Your task to perform on an android device: Clear the cart on newegg. Add logitech g933 to the cart on newegg Image 0: 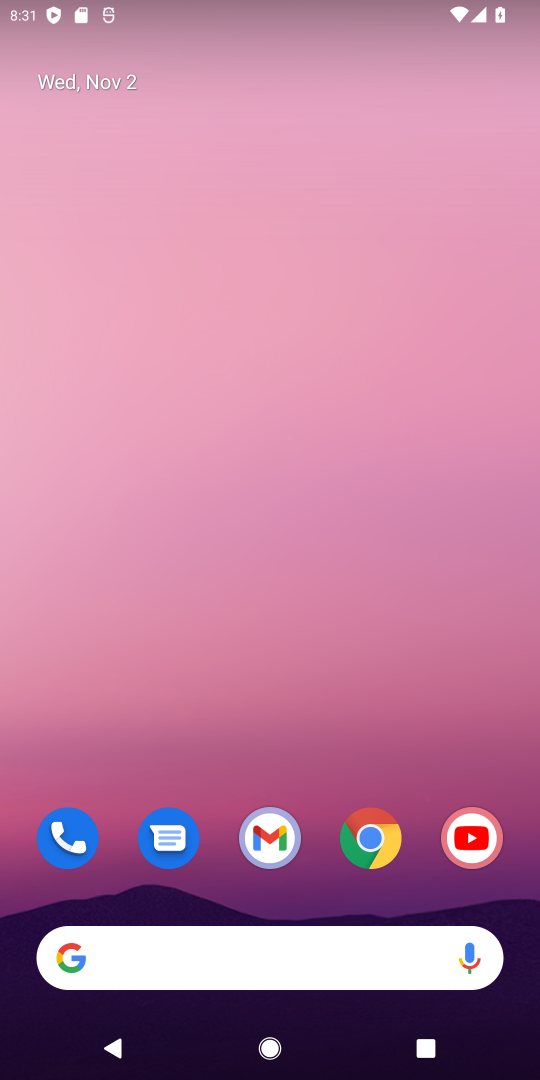
Step 0: click (389, 853)
Your task to perform on an android device: Clear the cart on newegg. Add logitech g933 to the cart on newegg Image 1: 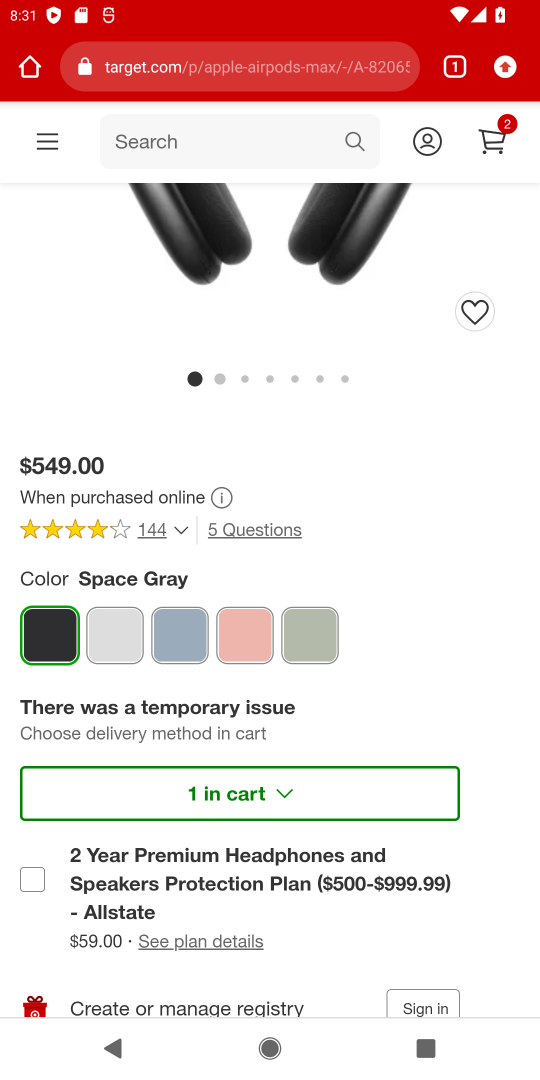
Step 1: click (307, 69)
Your task to perform on an android device: Clear the cart on newegg. Add logitech g933 to the cart on newegg Image 2: 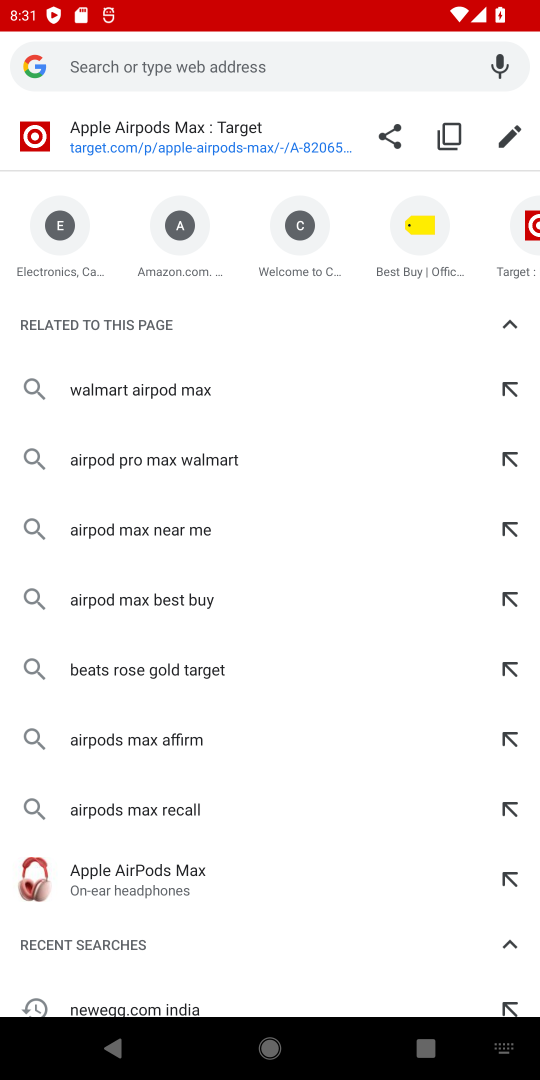
Step 2: type "newegg"
Your task to perform on an android device: Clear the cart on newegg. Add logitech g933 to the cart on newegg Image 3: 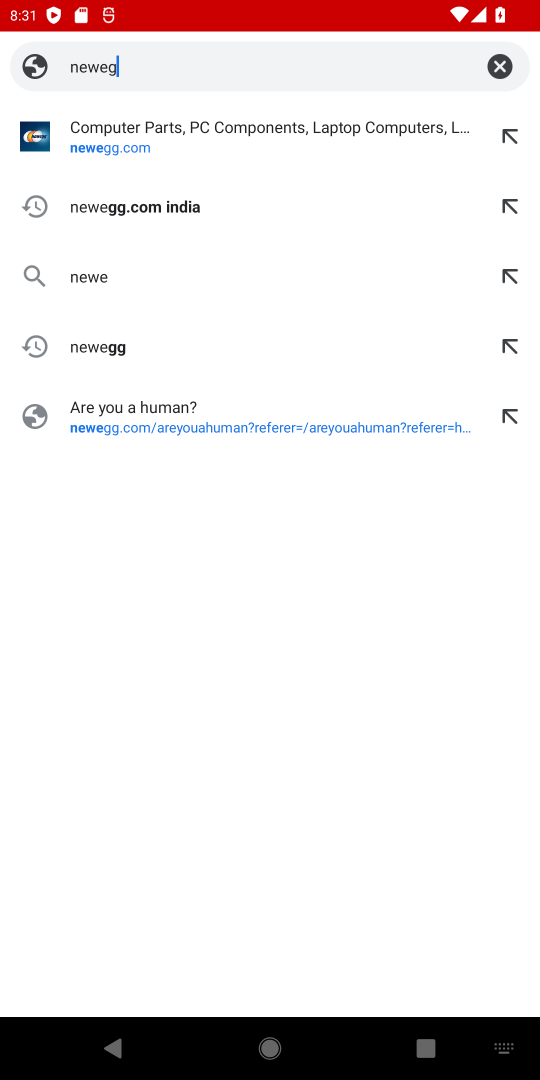
Step 3: type ""
Your task to perform on an android device: Clear the cart on newegg. Add logitech g933 to the cart on newegg Image 4: 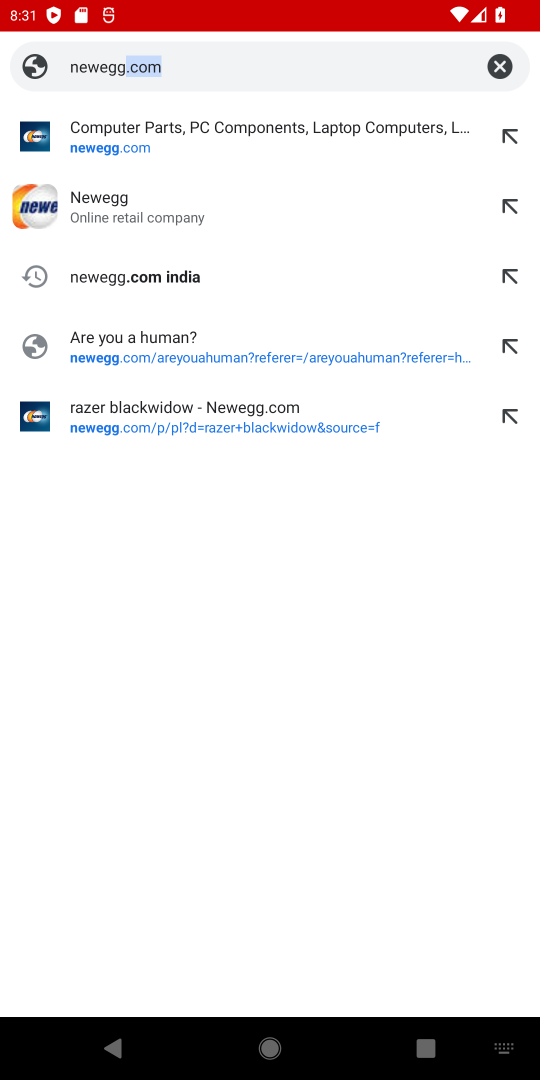
Step 4: press enter
Your task to perform on an android device: Clear the cart on newegg. Add logitech g933 to the cart on newegg Image 5: 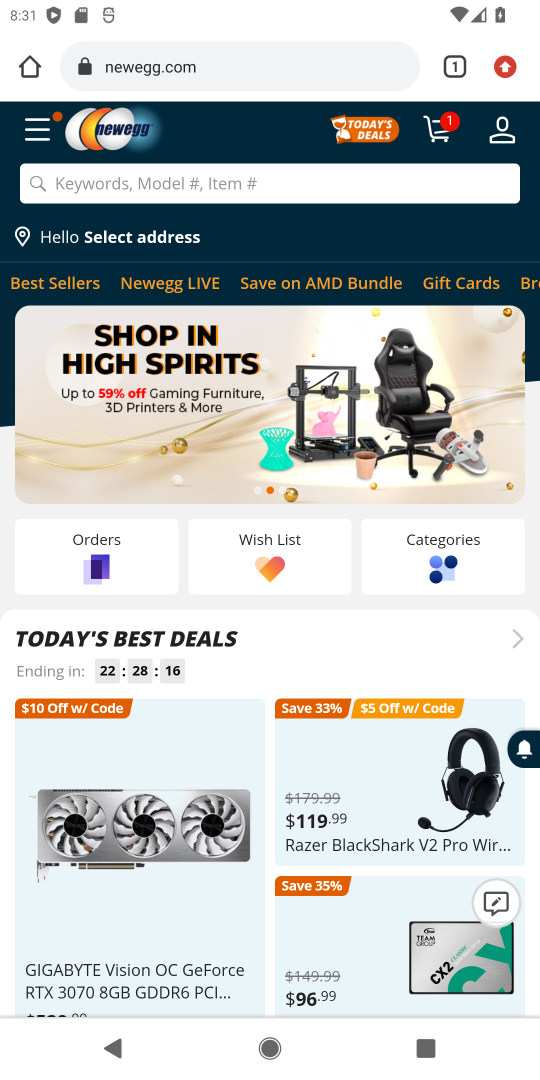
Step 5: click (444, 134)
Your task to perform on an android device: Clear the cart on newegg. Add logitech g933 to the cart on newegg Image 6: 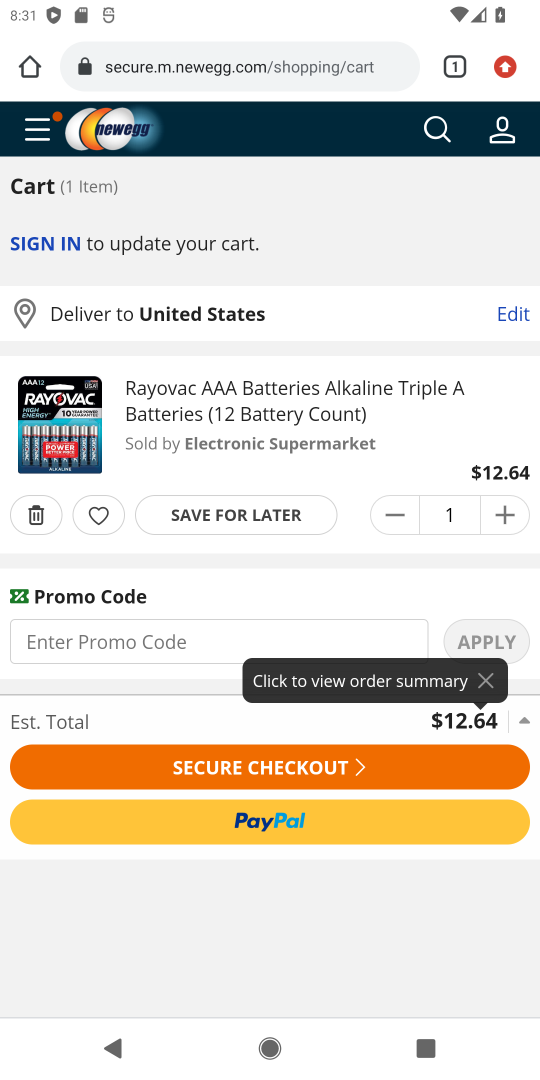
Step 6: click (27, 520)
Your task to perform on an android device: Clear the cart on newegg. Add logitech g933 to the cart on newegg Image 7: 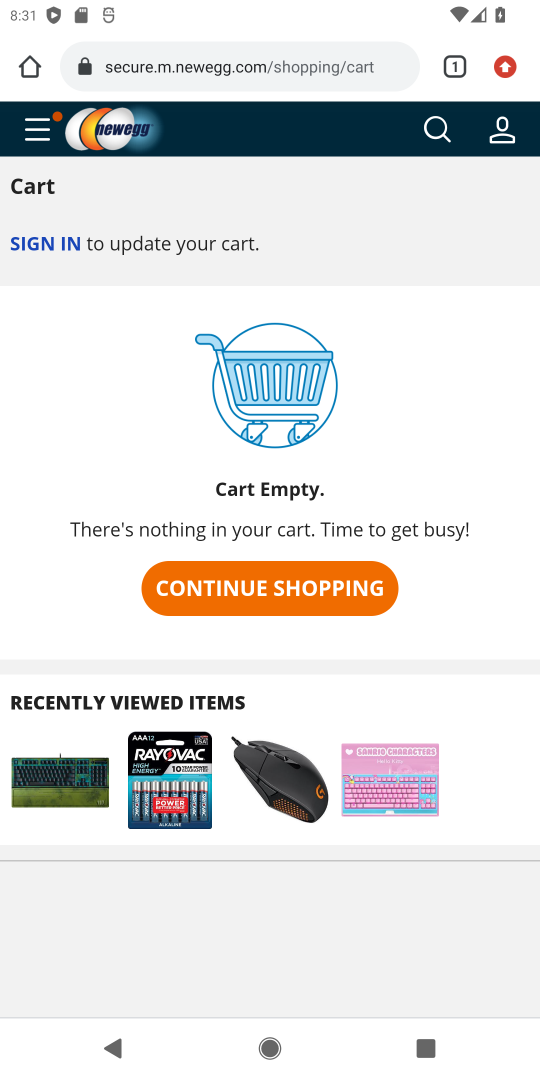
Step 7: click (213, 587)
Your task to perform on an android device: Clear the cart on newegg. Add logitech g933 to the cart on newegg Image 8: 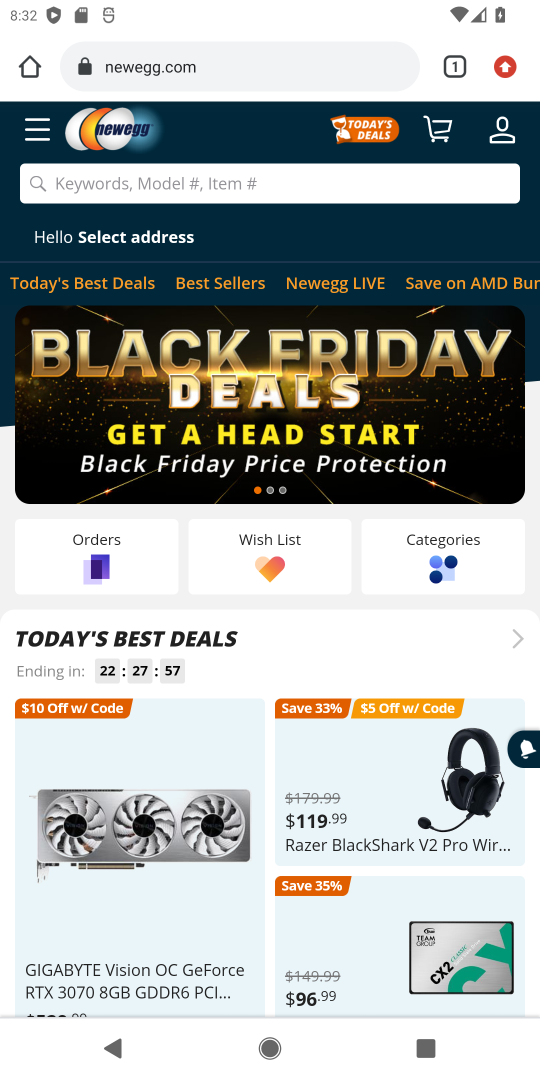
Step 8: click (320, 189)
Your task to perform on an android device: Clear the cart on newegg. Add logitech g933 to the cart on newegg Image 9: 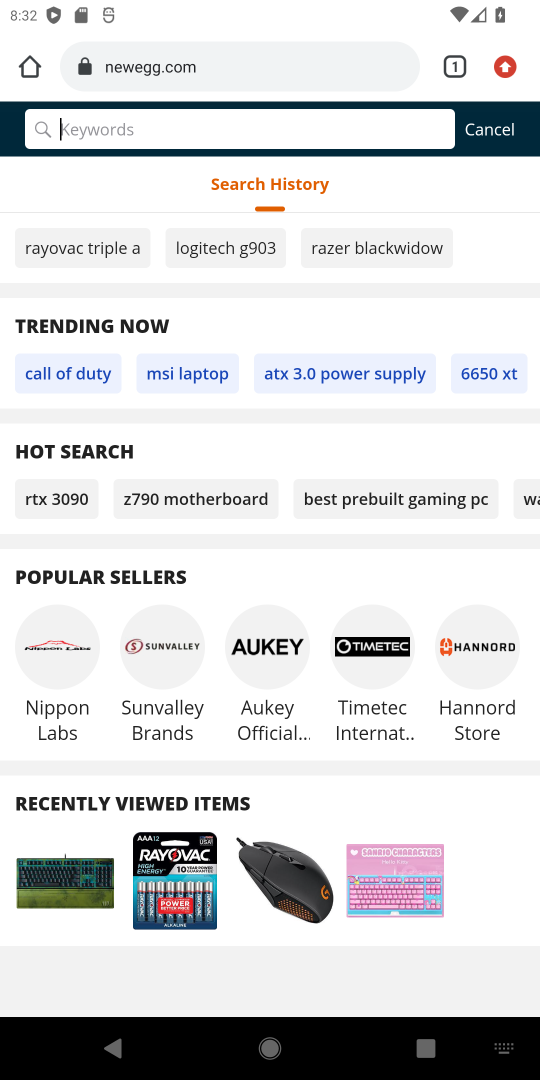
Step 9: type "logitech g933"
Your task to perform on an android device: Clear the cart on newegg. Add logitech g933 to the cart on newegg Image 10: 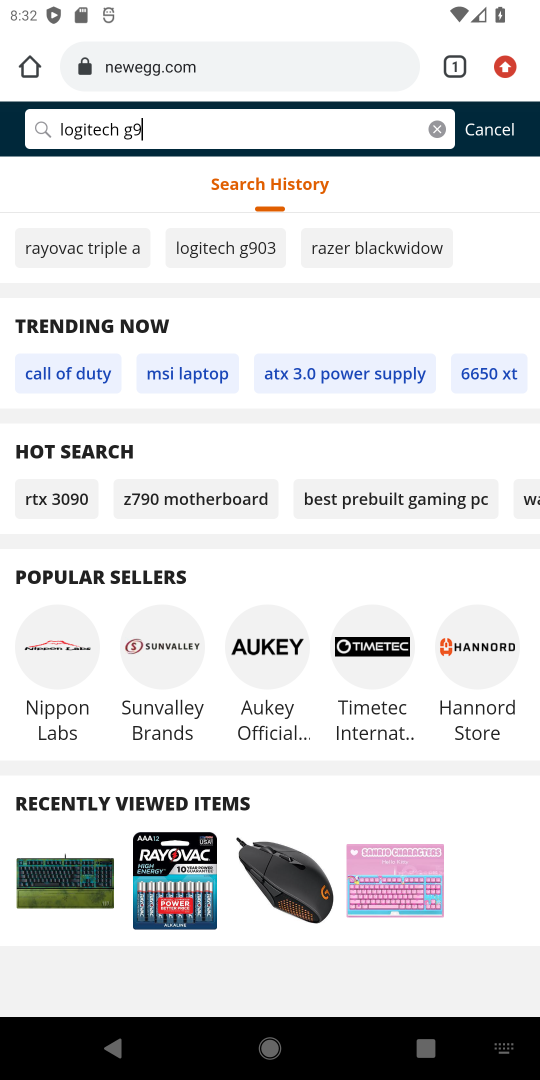
Step 10: type ""
Your task to perform on an android device: Clear the cart on newegg. Add logitech g933 to the cart on newegg Image 11: 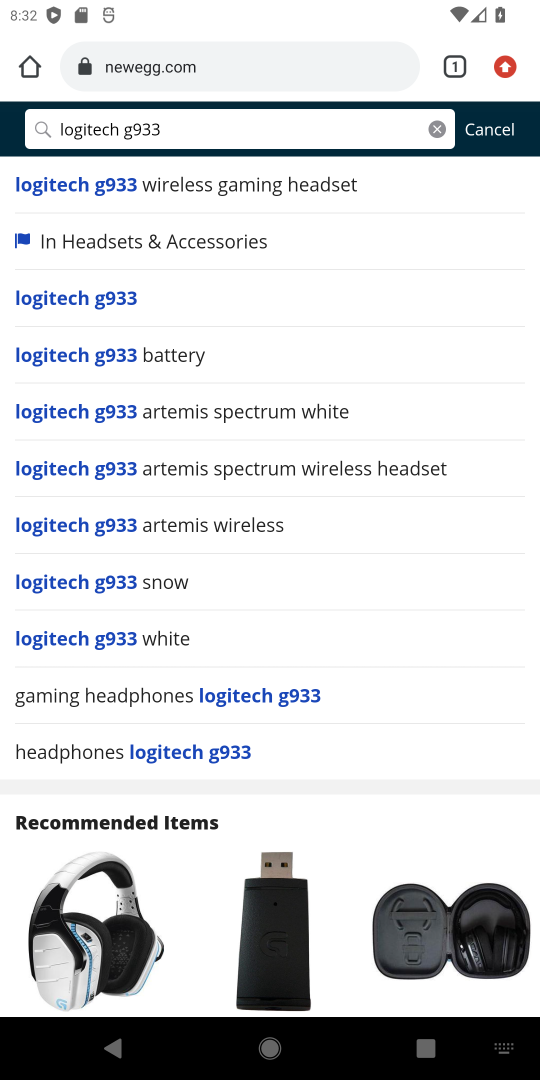
Step 11: press enter
Your task to perform on an android device: Clear the cart on newegg. Add logitech g933 to the cart on newegg Image 12: 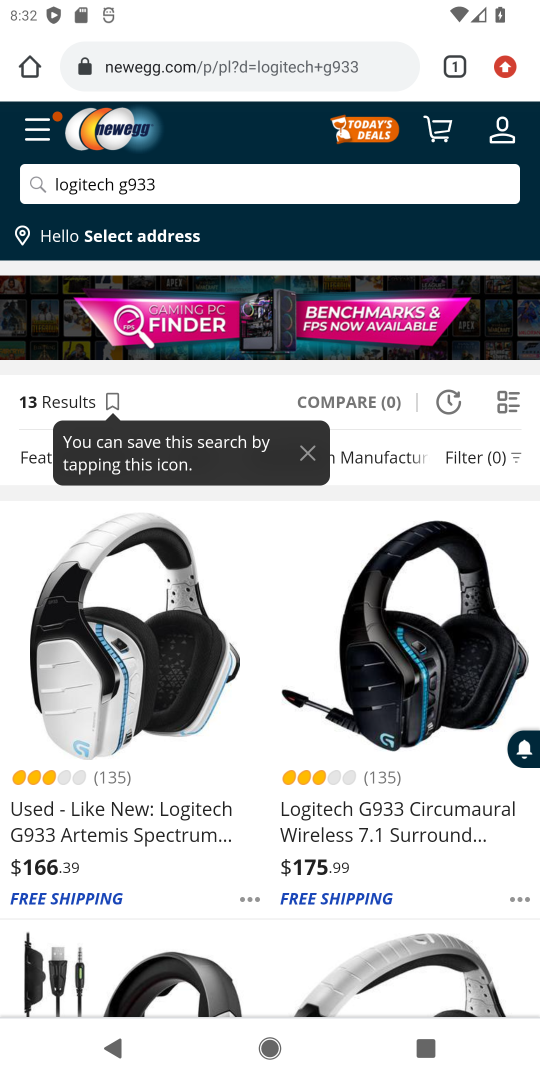
Step 12: drag from (305, 891) to (305, 754)
Your task to perform on an android device: Clear the cart on newegg. Add logitech g933 to the cart on newegg Image 13: 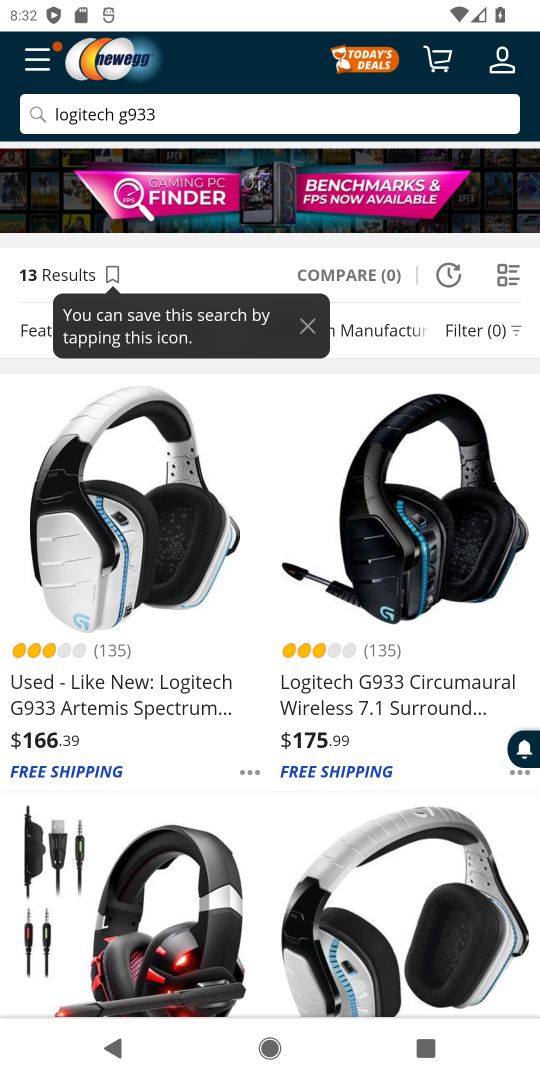
Step 13: click (362, 603)
Your task to perform on an android device: Clear the cart on newegg. Add logitech g933 to the cart on newegg Image 14: 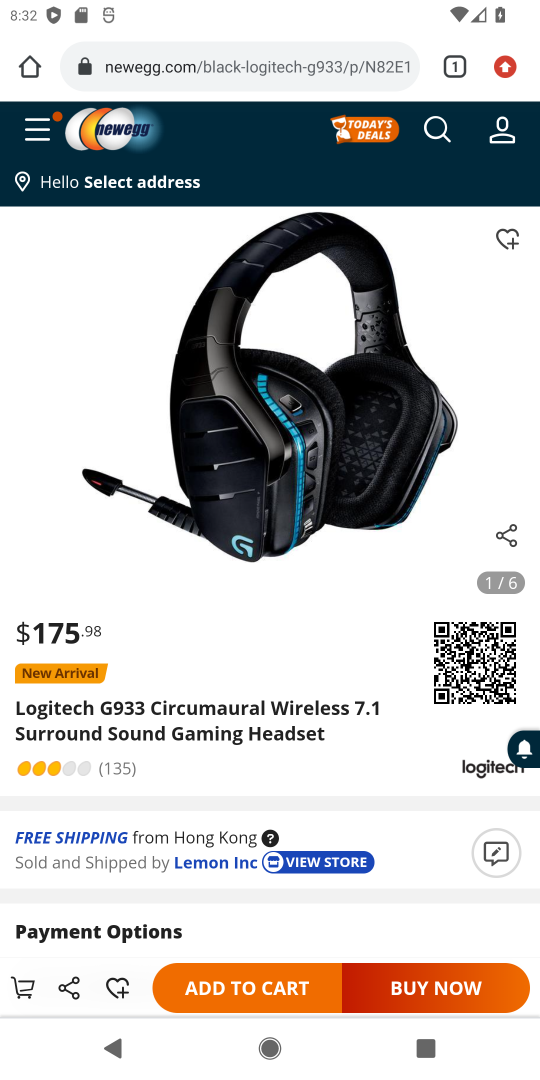
Step 14: click (272, 982)
Your task to perform on an android device: Clear the cart on newegg. Add logitech g933 to the cart on newegg Image 15: 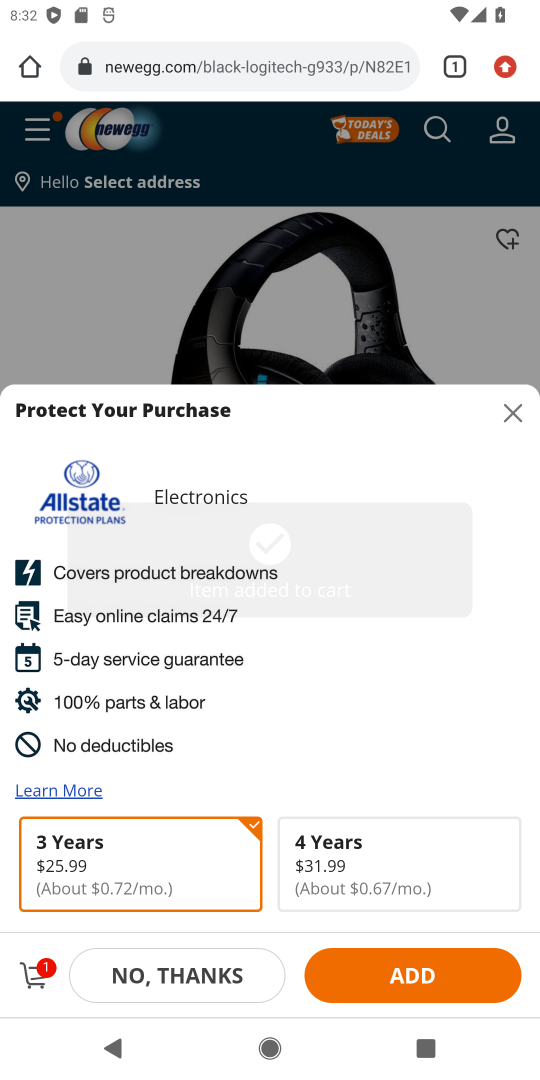
Step 15: click (43, 978)
Your task to perform on an android device: Clear the cart on newegg. Add logitech g933 to the cart on newegg Image 16: 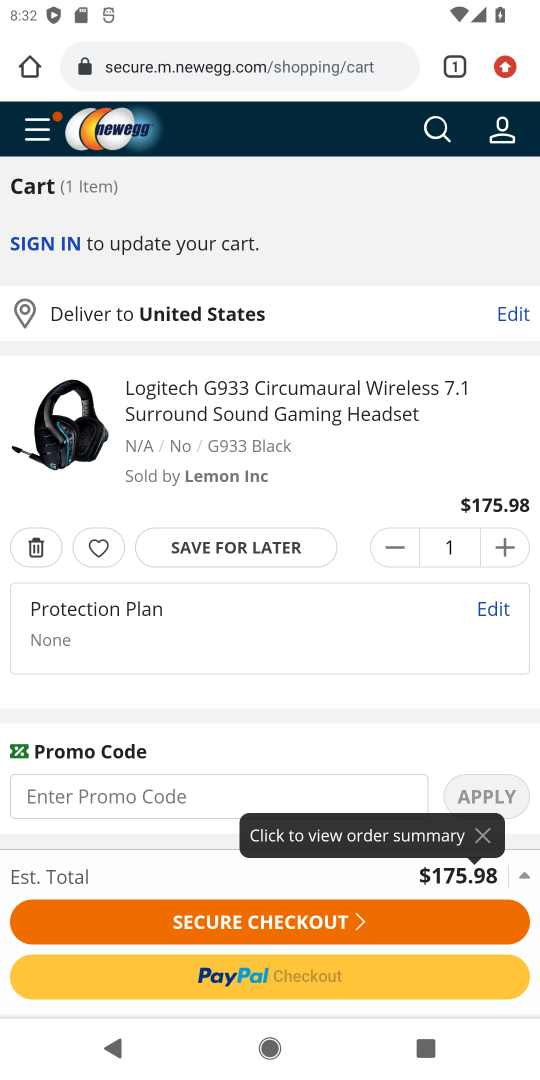
Step 16: click (173, 915)
Your task to perform on an android device: Clear the cart on newegg. Add logitech g933 to the cart on newegg Image 17: 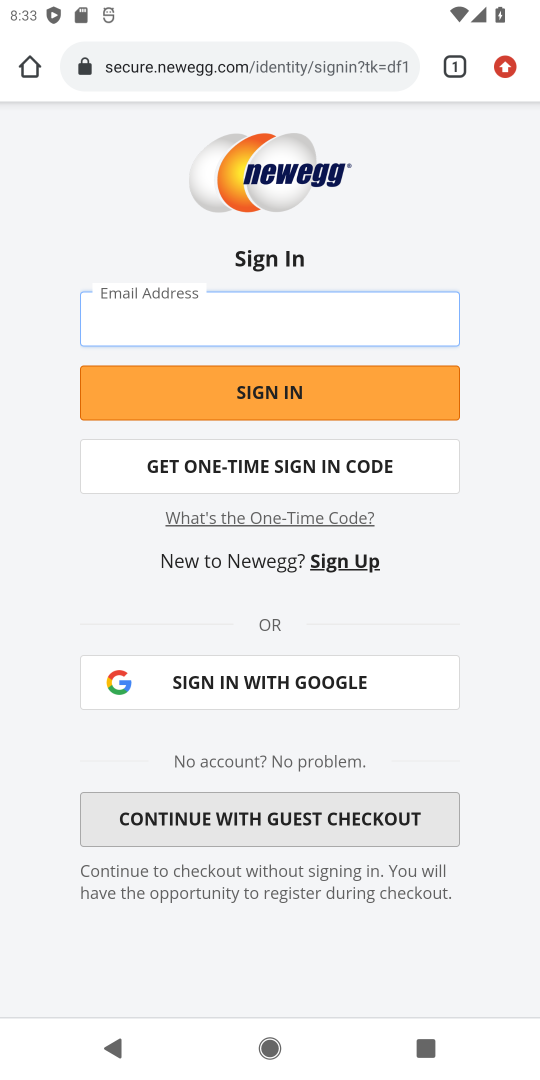
Step 17: task complete